Your task to perform on an android device: Open Google Chrome and click the shortcut for Amazon.com Image 0: 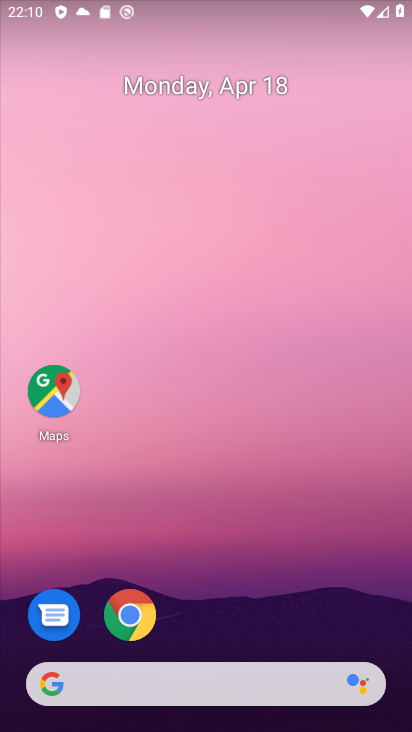
Step 0: click (140, 609)
Your task to perform on an android device: Open Google Chrome and click the shortcut for Amazon.com Image 1: 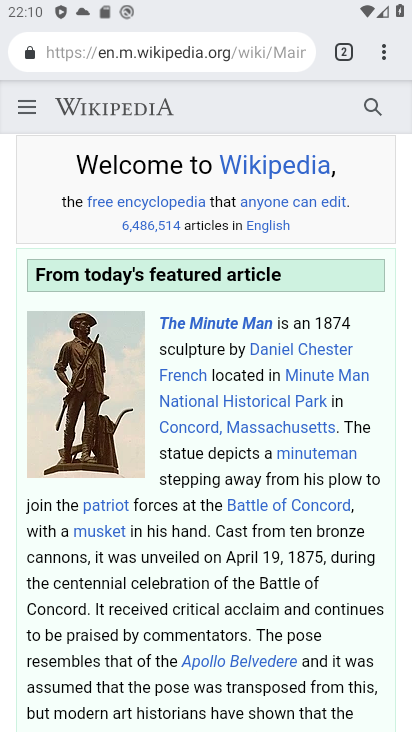
Step 1: click (381, 56)
Your task to perform on an android device: Open Google Chrome and click the shortcut for Amazon.com Image 2: 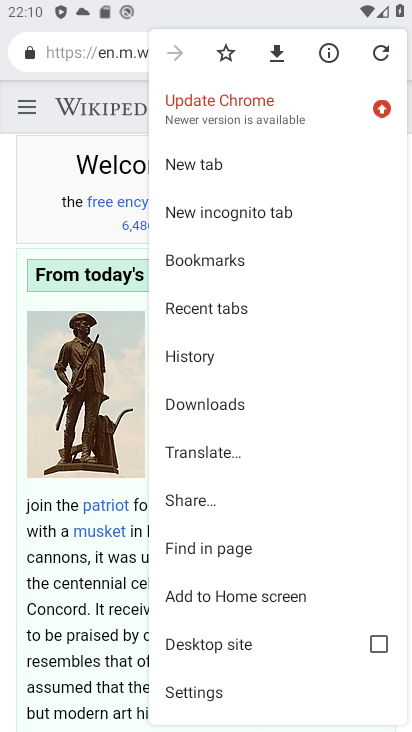
Step 2: click (209, 174)
Your task to perform on an android device: Open Google Chrome and click the shortcut for Amazon.com Image 3: 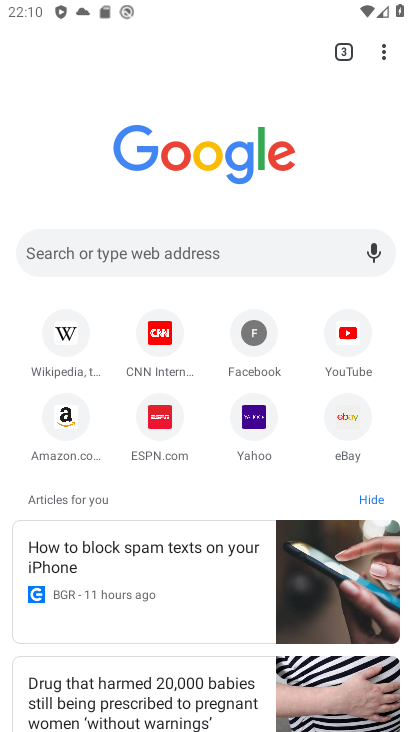
Step 3: click (65, 427)
Your task to perform on an android device: Open Google Chrome and click the shortcut for Amazon.com Image 4: 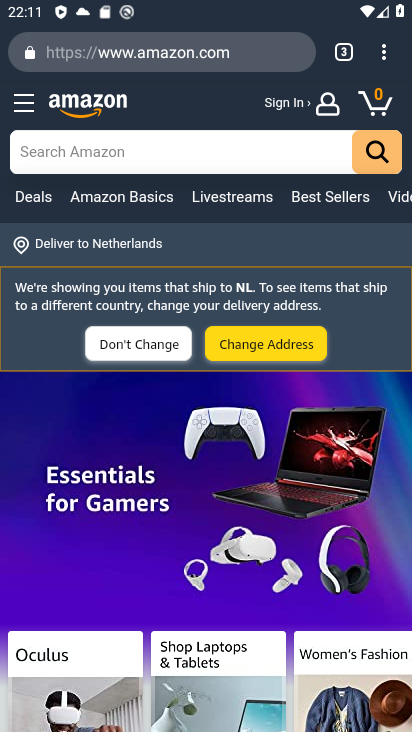
Step 4: task complete